Your task to perform on an android device: Check my email inbox Image 0: 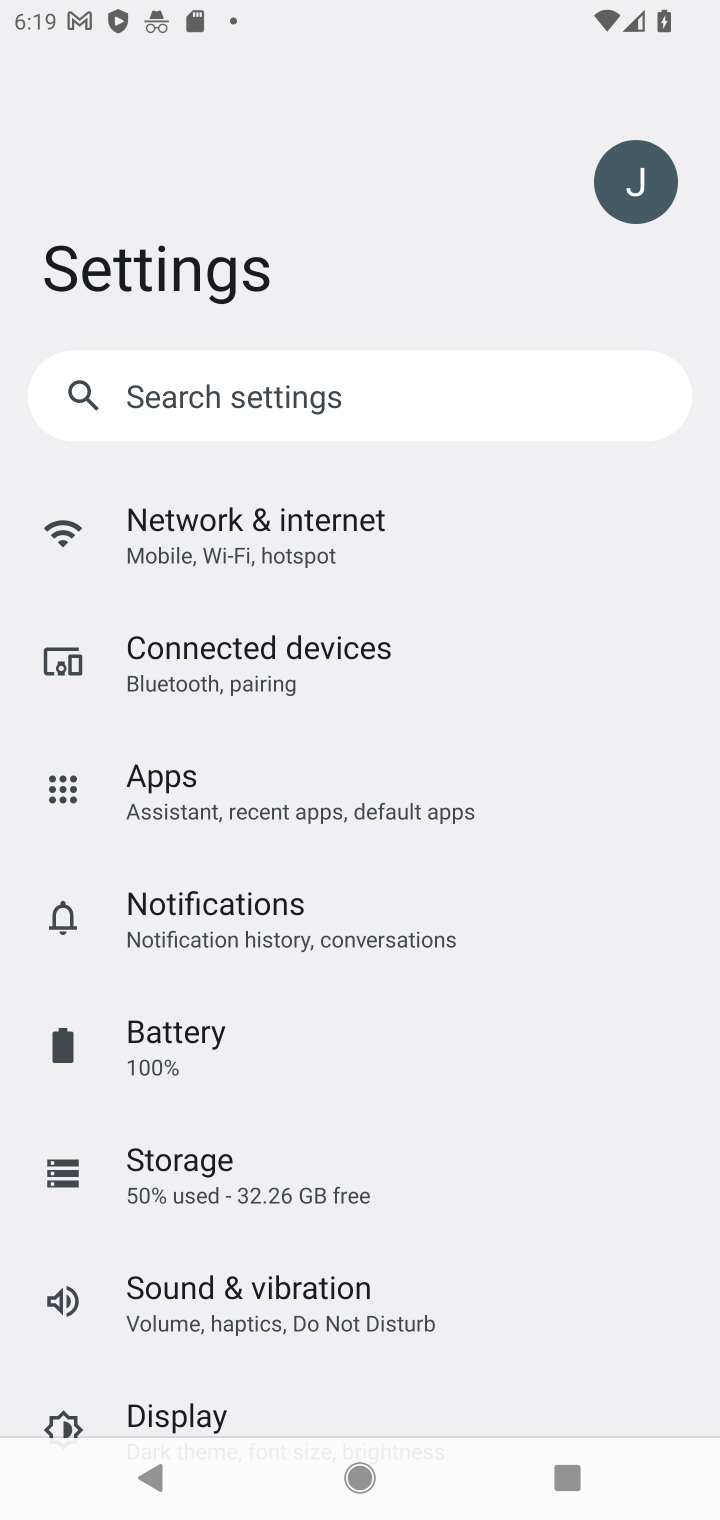
Step 0: press home button
Your task to perform on an android device: Check my email inbox Image 1: 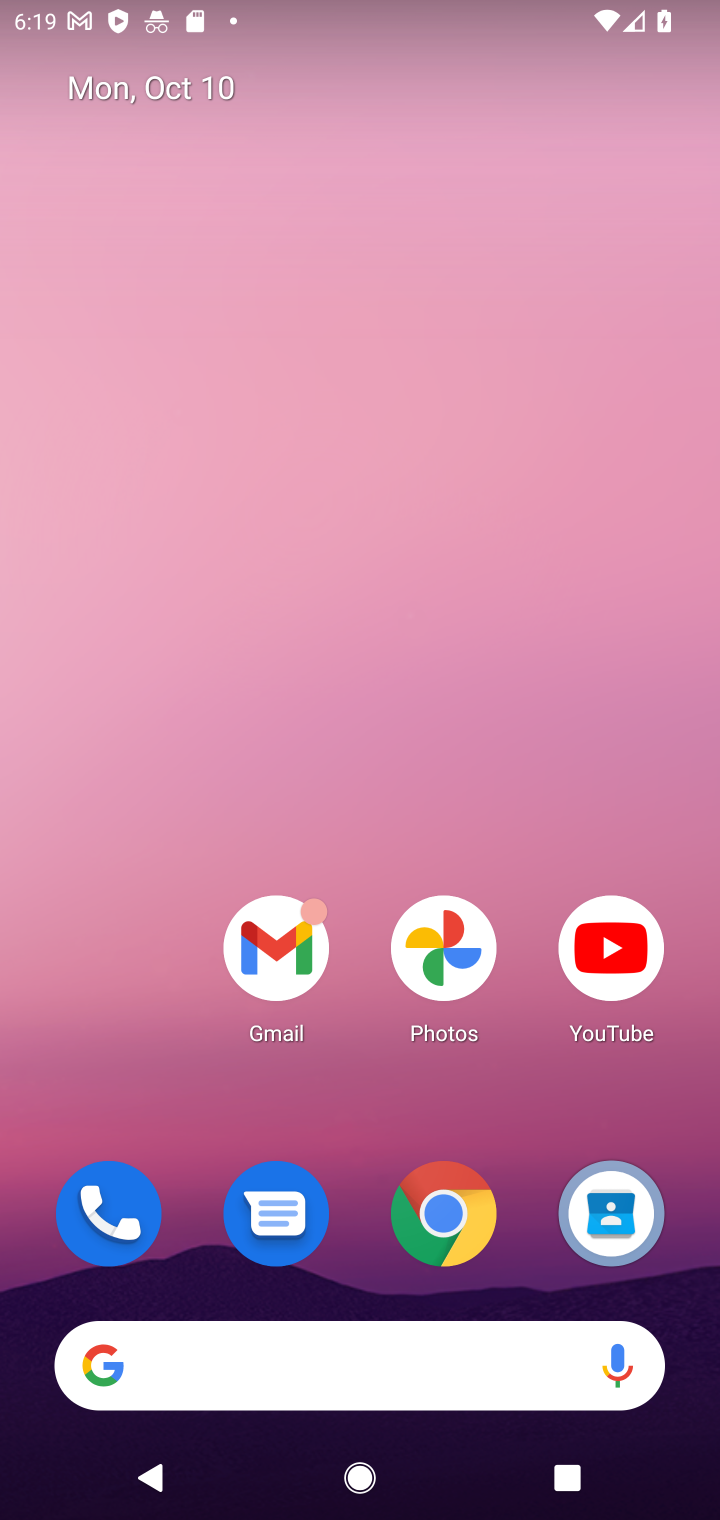
Step 1: drag from (187, 892) to (313, 6)
Your task to perform on an android device: Check my email inbox Image 2: 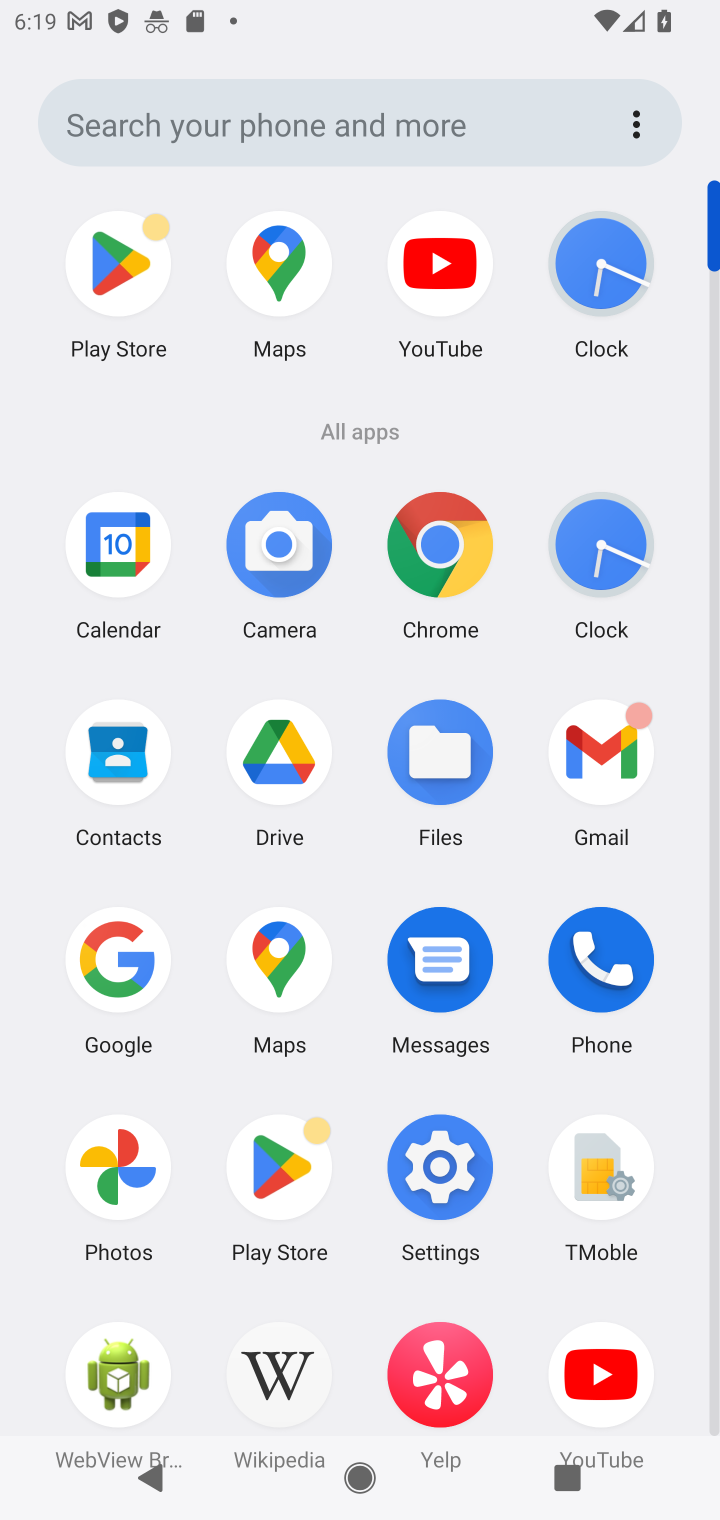
Step 2: click (579, 760)
Your task to perform on an android device: Check my email inbox Image 3: 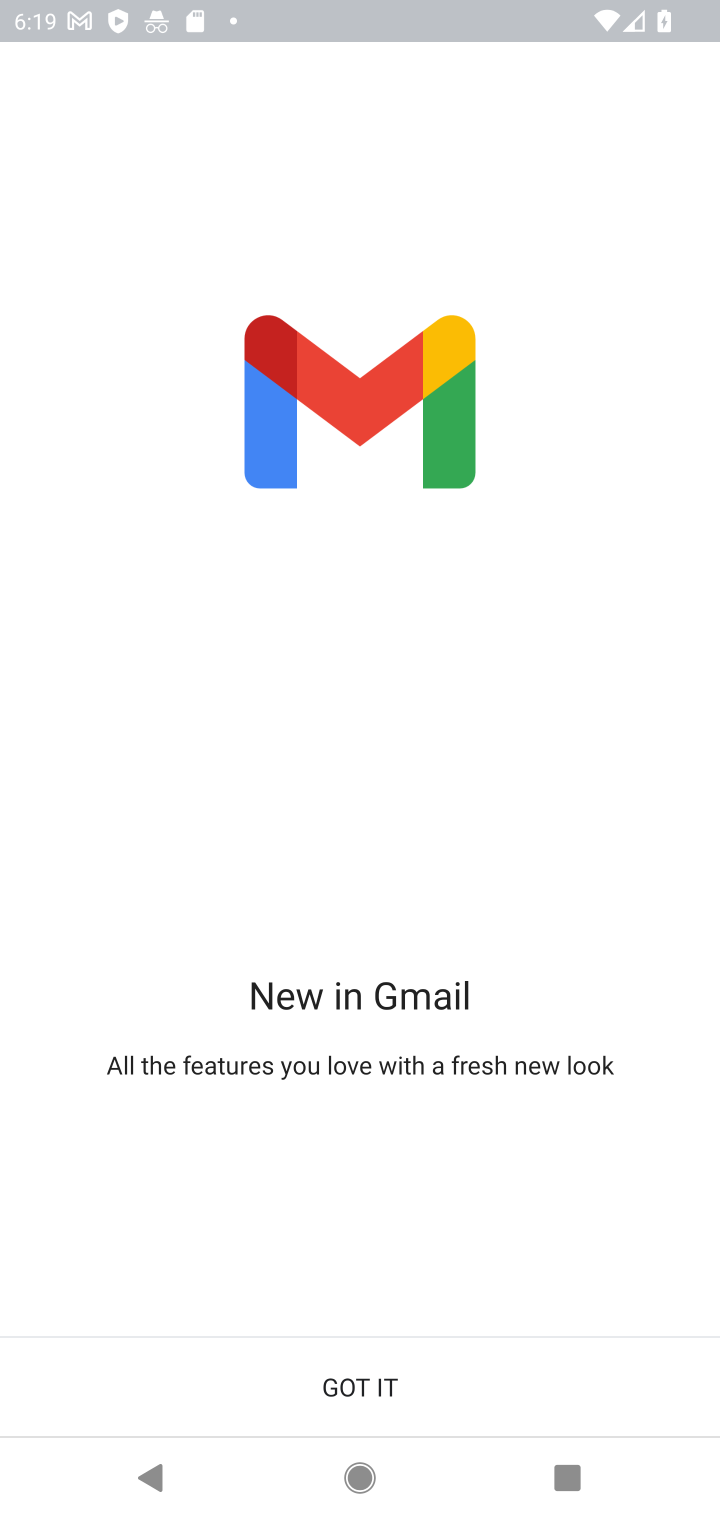
Step 3: click (379, 1400)
Your task to perform on an android device: Check my email inbox Image 4: 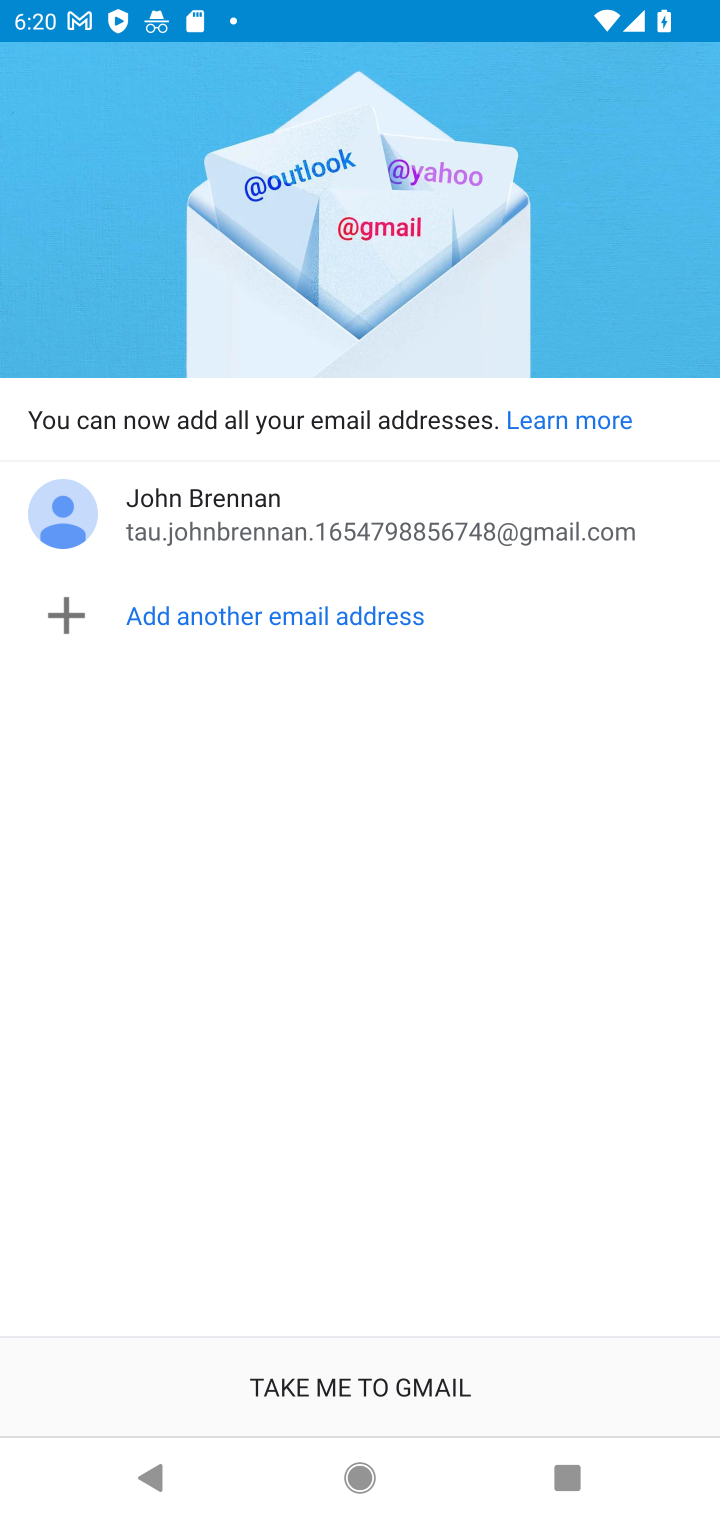
Step 4: click (420, 1393)
Your task to perform on an android device: Check my email inbox Image 5: 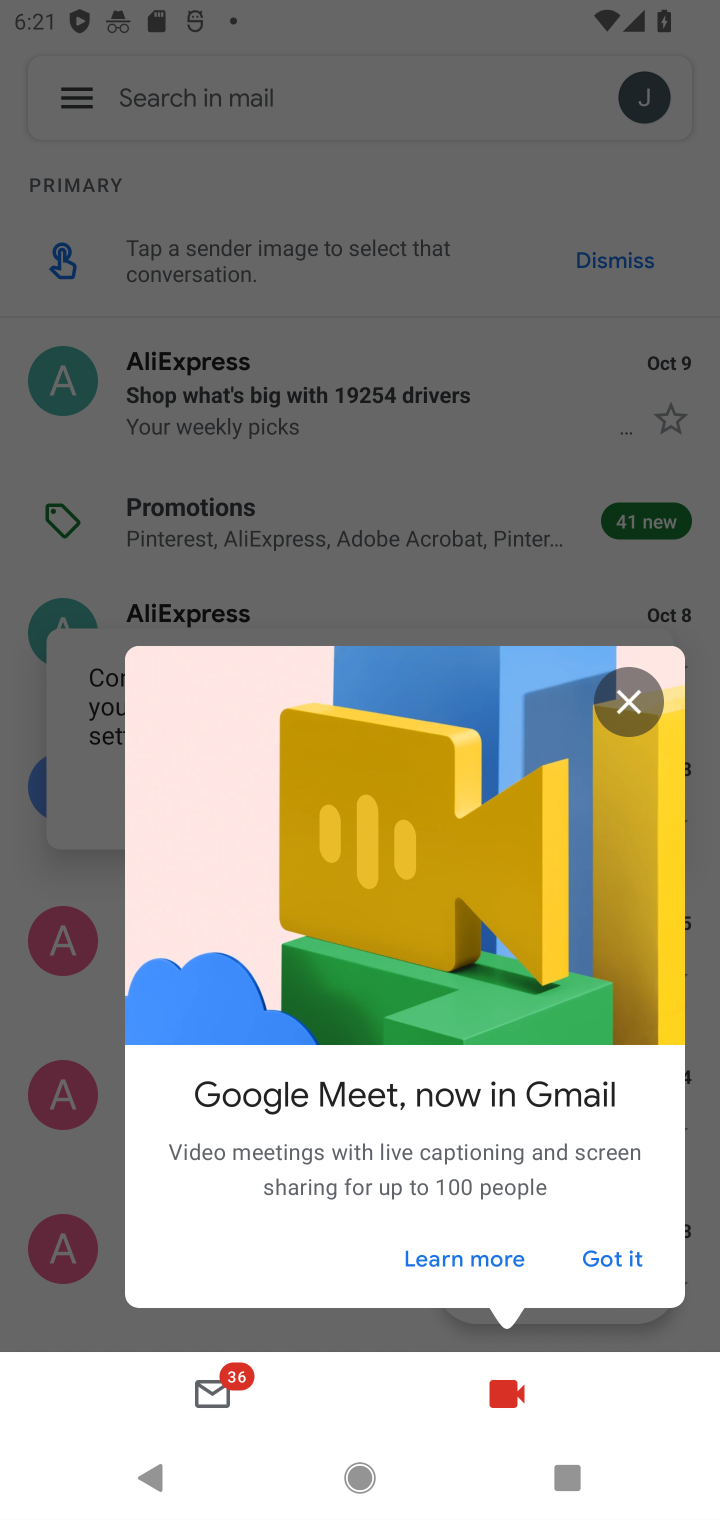
Step 5: click (625, 715)
Your task to perform on an android device: Check my email inbox Image 6: 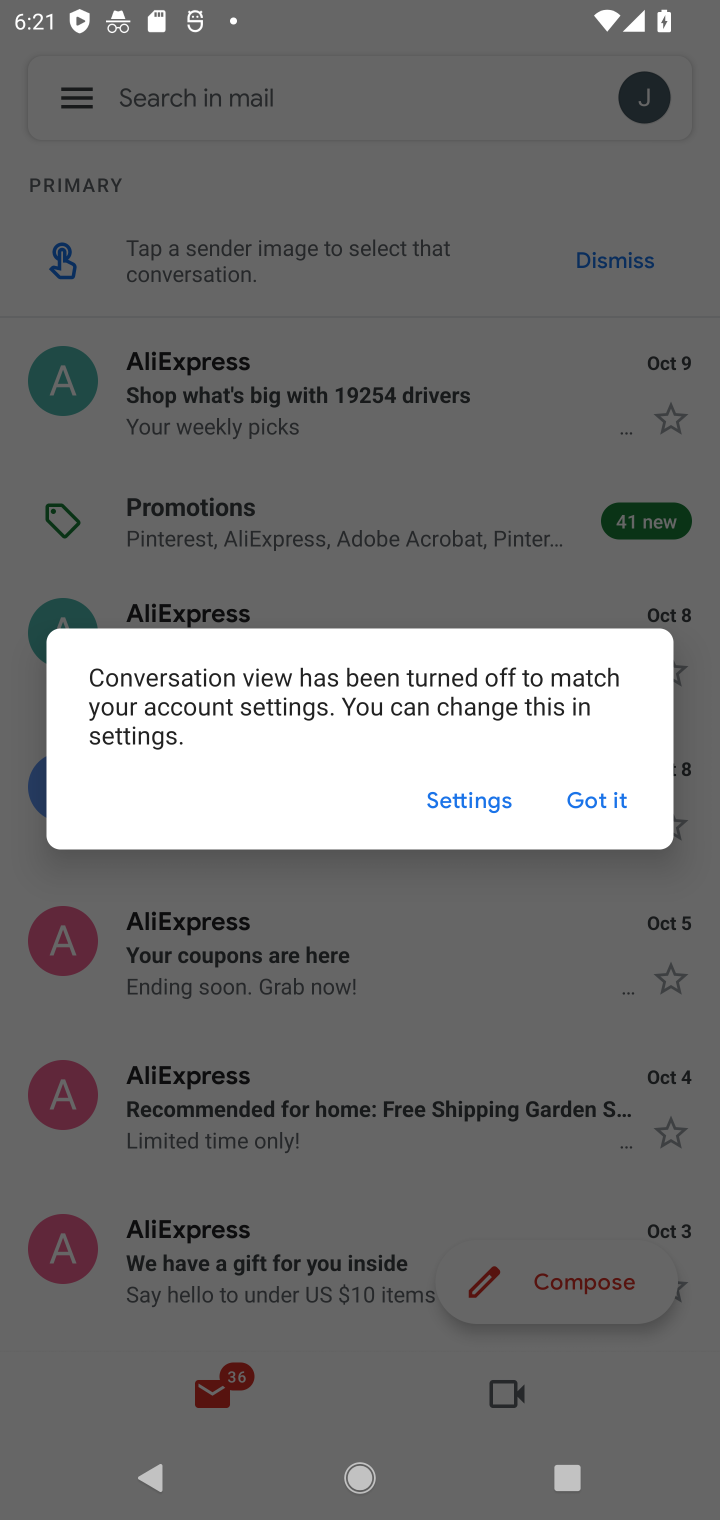
Step 6: click (606, 790)
Your task to perform on an android device: Check my email inbox Image 7: 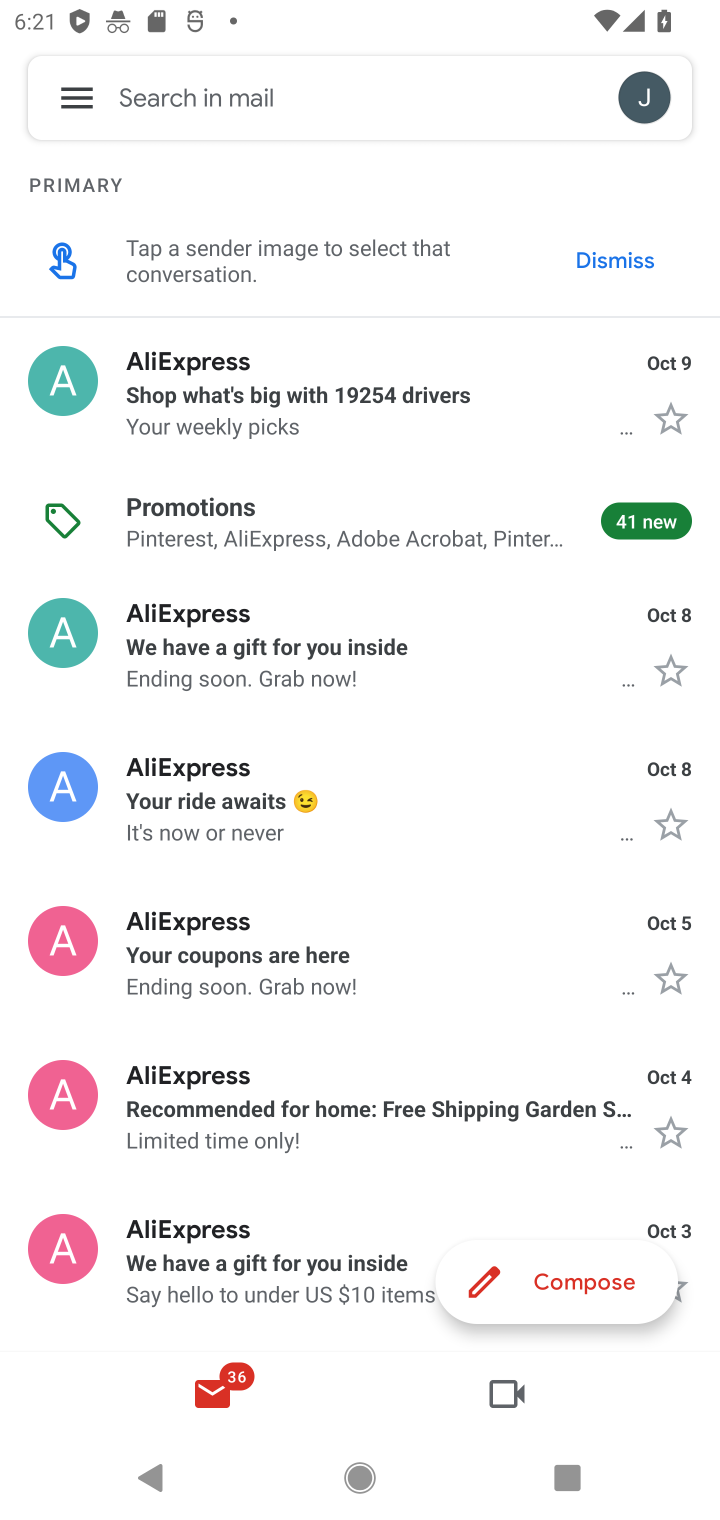
Step 7: task complete